Your task to perform on an android device: visit the assistant section in the google photos Image 0: 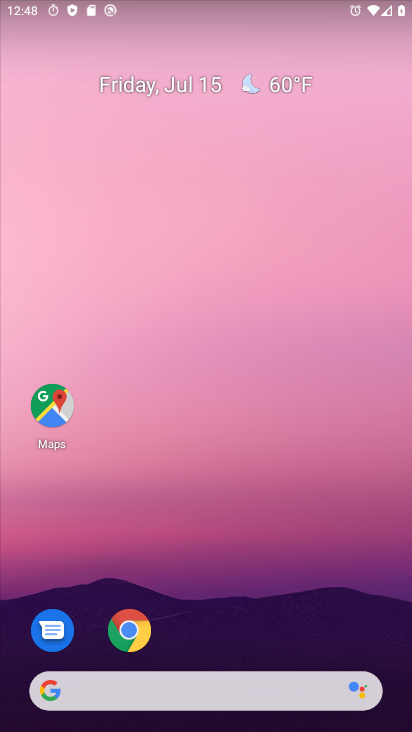
Step 0: drag from (232, 627) to (224, 544)
Your task to perform on an android device: visit the assistant section in the google photos Image 1: 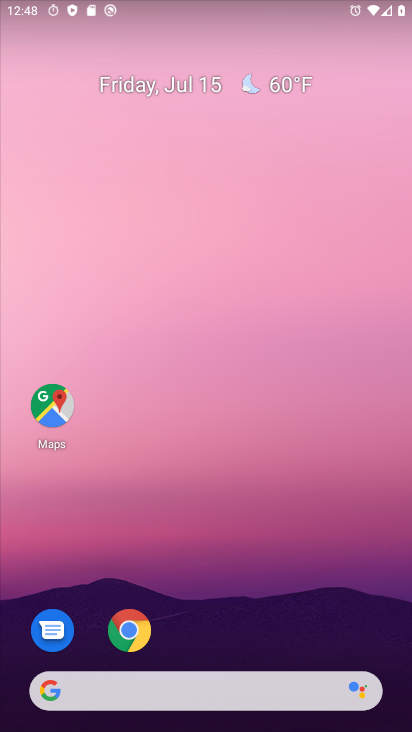
Step 1: click (224, 544)
Your task to perform on an android device: visit the assistant section in the google photos Image 2: 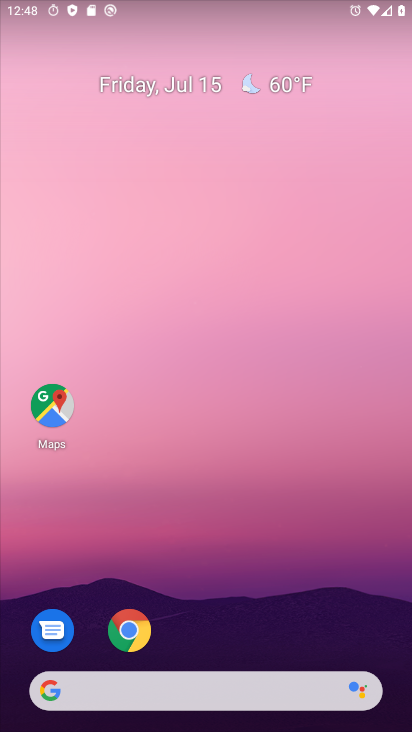
Step 2: drag from (177, 607) to (208, 81)
Your task to perform on an android device: visit the assistant section in the google photos Image 3: 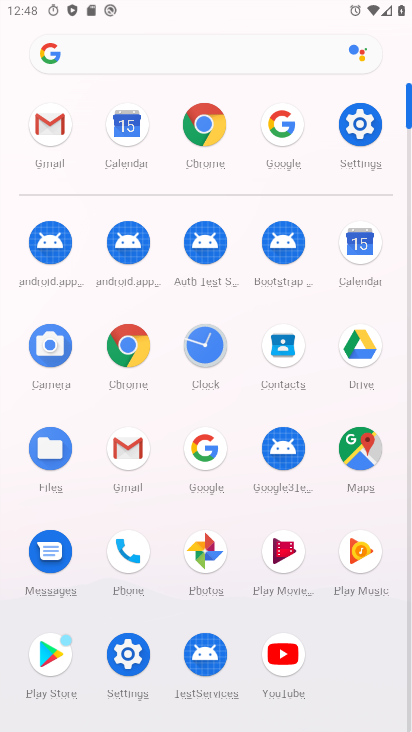
Step 3: click (209, 581)
Your task to perform on an android device: visit the assistant section in the google photos Image 4: 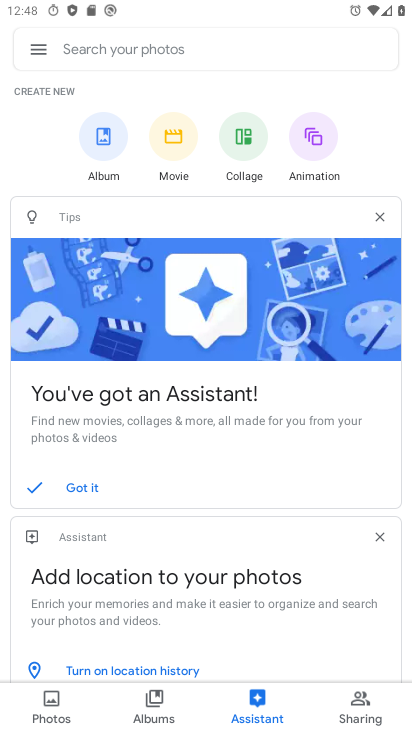
Step 4: click (251, 712)
Your task to perform on an android device: visit the assistant section in the google photos Image 5: 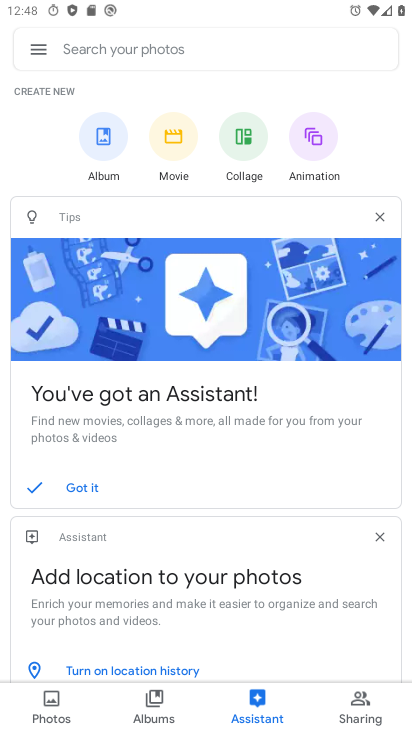
Step 5: task complete